Your task to perform on an android device: turn pop-ups off in chrome Image 0: 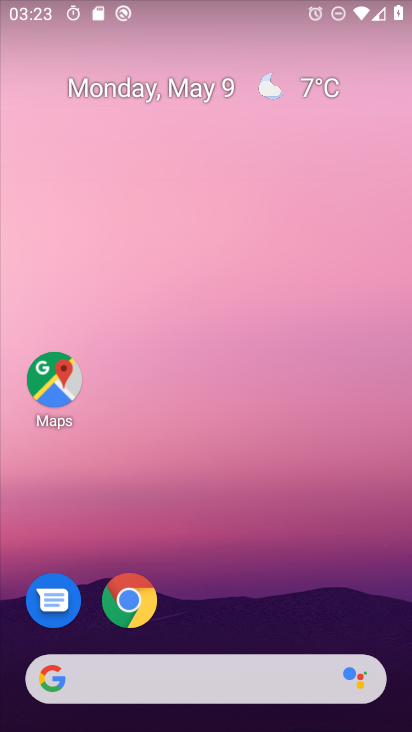
Step 0: click (43, 399)
Your task to perform on an android device: turn pop-ups off in chrome Image 1: 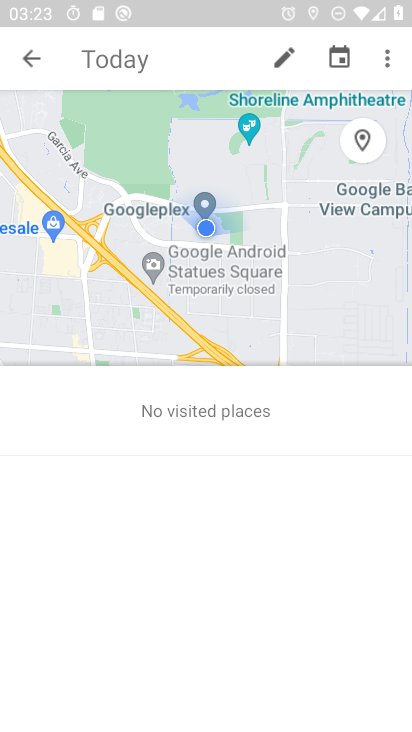
Step 1: press home button
Your task to perform on an android device: turn pop-ups off in chrome Image 2: 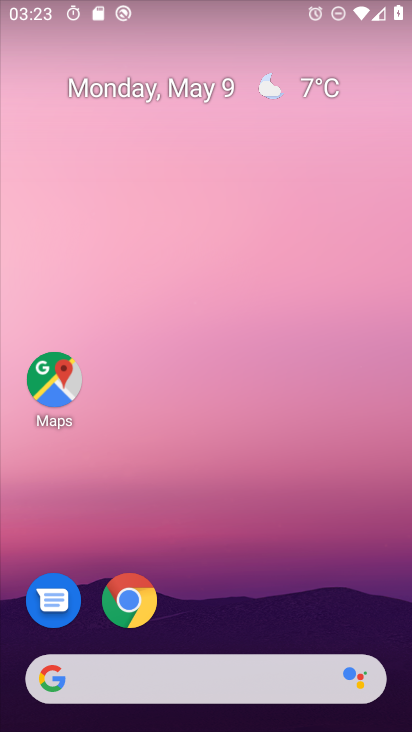
Step 2: click (128, 594)
Your task to perform on an android device: turn pop-ups off in chrome Image 3: 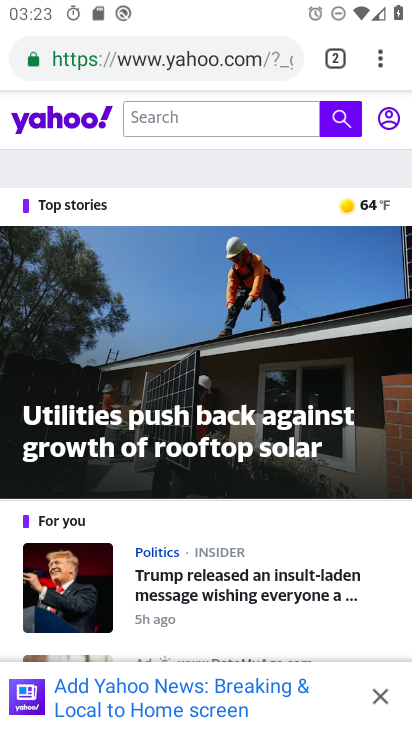
Step 3: drag from (381, 51) to (181, 634)
Your task to perform on an android device: turn pop-ups off in chrome Image 4: 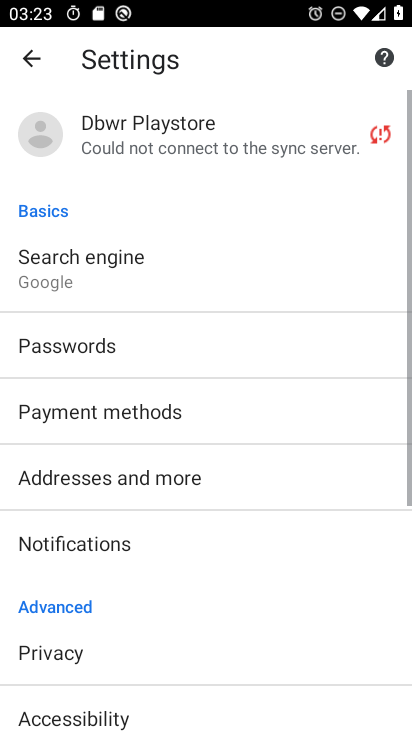
Step 4: drag from (181, 634) to (251, 498)
Your task to perform on an android device: turn pop-ups off in chrome Image 5: 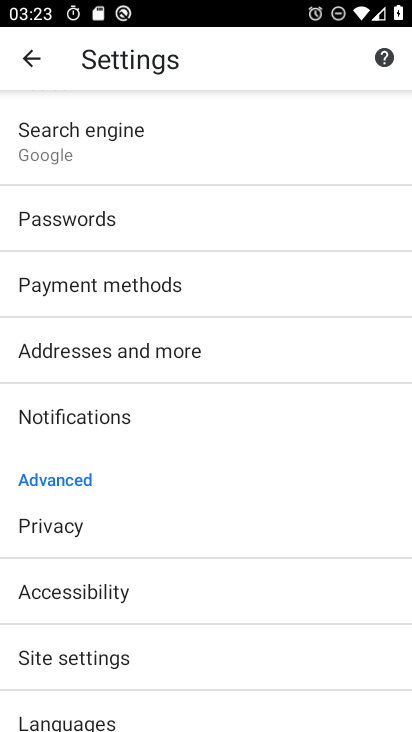
Step 5: click (139, 640)
Your task to perform on an android device: turn pop-ups off in chrome Image 6: 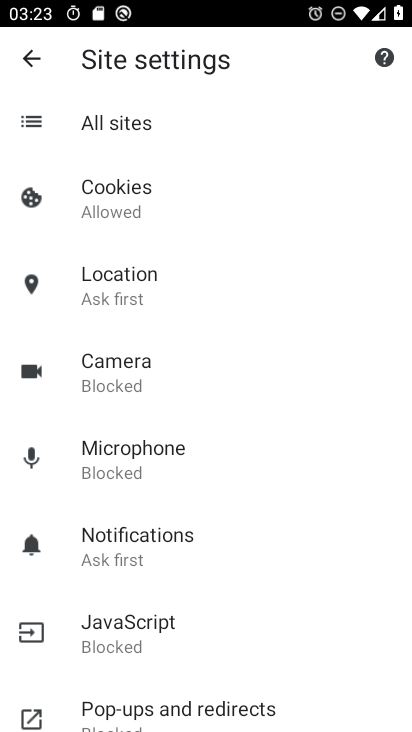
Step 6: click (243, 710)
Your task to perform on an android device: turn pop-ups off in chrome Image 7: 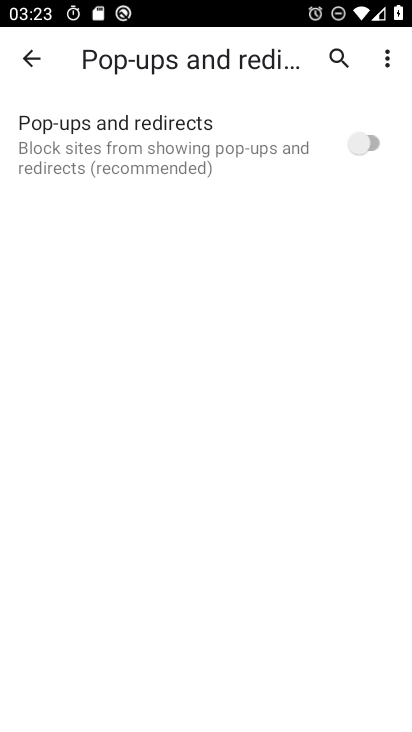
Step 7: task complete